Your task to perform on an android device: Open wifi settings Image 0: 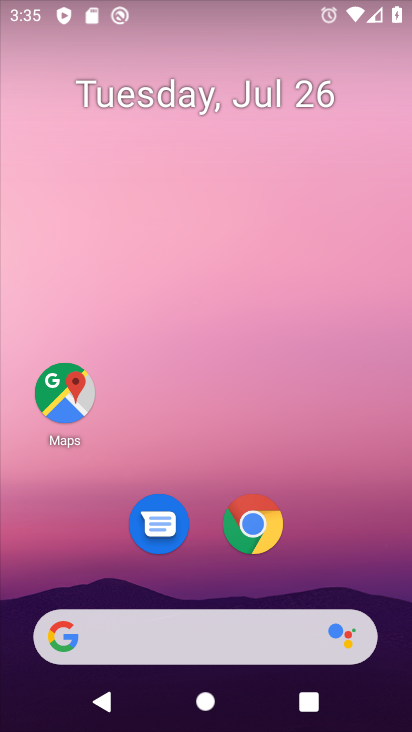
Step 0: click (75, 392)
Your task to perform on an android device: Open wifi settings Image 1: 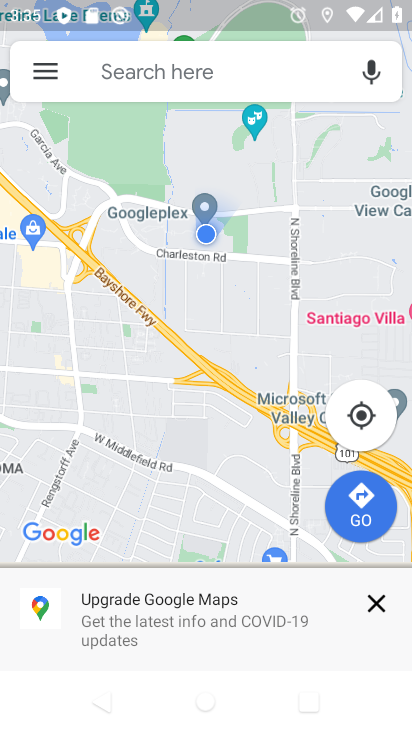
Step 1: press home button
Your task to perform on an android device: Open wifi settings Image 2: 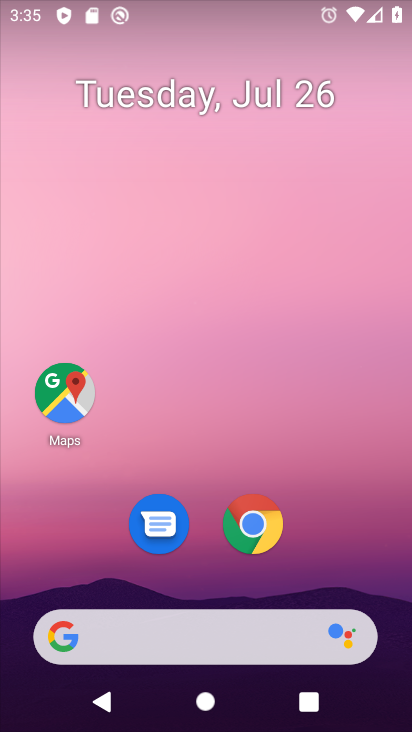
Step 2: drag from (322, 570) to (289, 6)
Your task to perform on an android device: Open wifi settings Image 3: 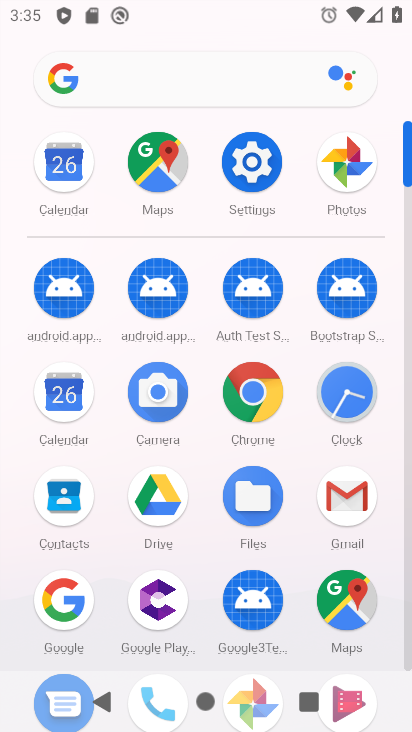
Step 3: click (264, 160)
Your task to perform on an android device: Open wifi settings Image 4: 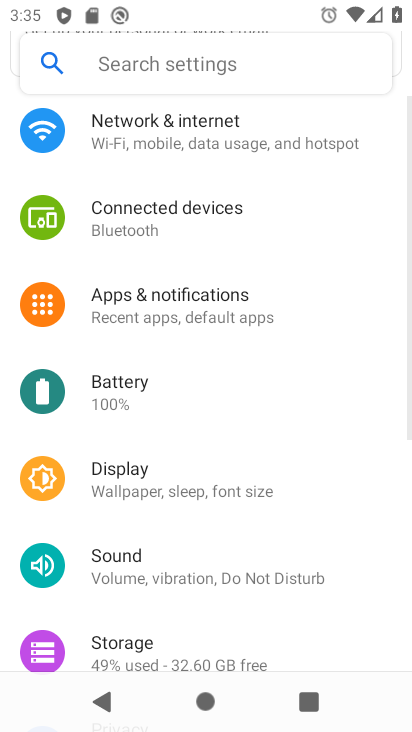
Step 4: drag from (262, 209) to (279, 370)
Your task to perform on an android device: Open wifi settings Image 5: 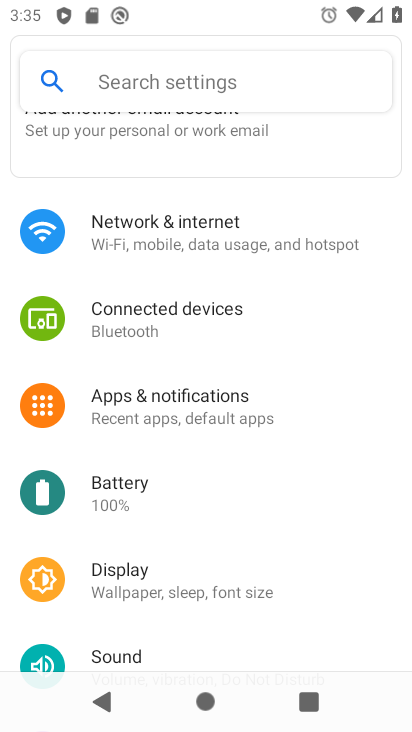
Step 5: click (143, 213)
Your task to perform on an android device: Open wifi settings Image 6: 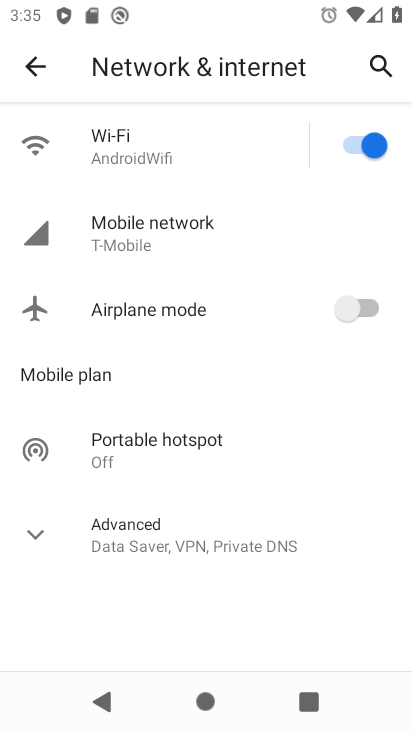
Step 6: task complete